Your task to perform on an android device: add a label to a message in the gmail app Image 0: 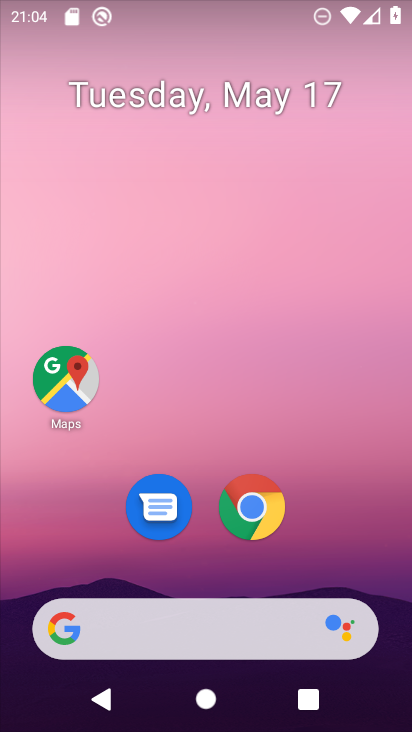
Step 0: drag from (360, 568) to (360, 14)
Your task to perform on an android device: add a label to a message in the gmail app Image 1: 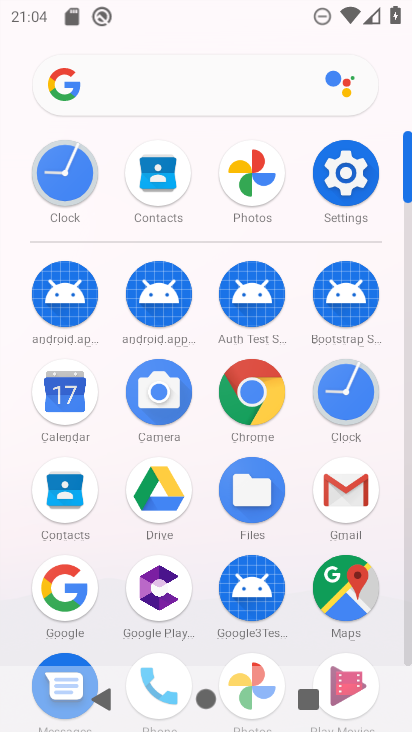
Step 1: click (333, 489)
Your task to perform on an android device: add a label to a message in the gmail app Image 2: 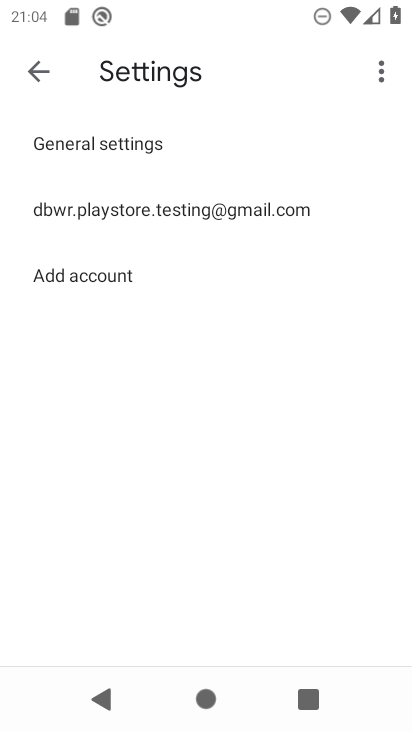
Step 2: click (38, 73)
Your task to perform on an android device: add a label to a message in the gmail app Image 3: 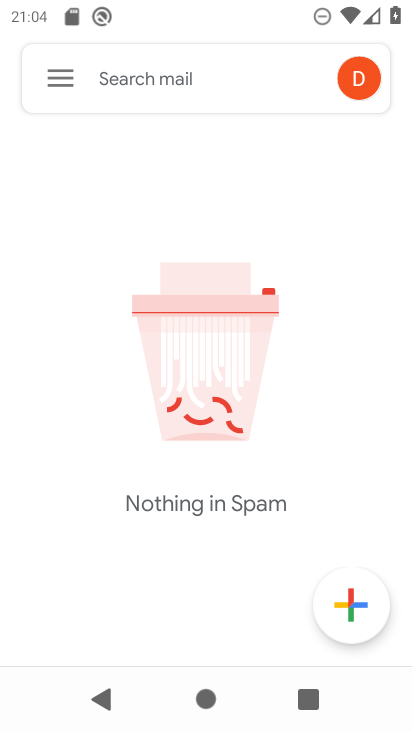
Step 3: click (54, 86)
Your task to perform on an android device: add a label to a message in the gmail app Image 4: 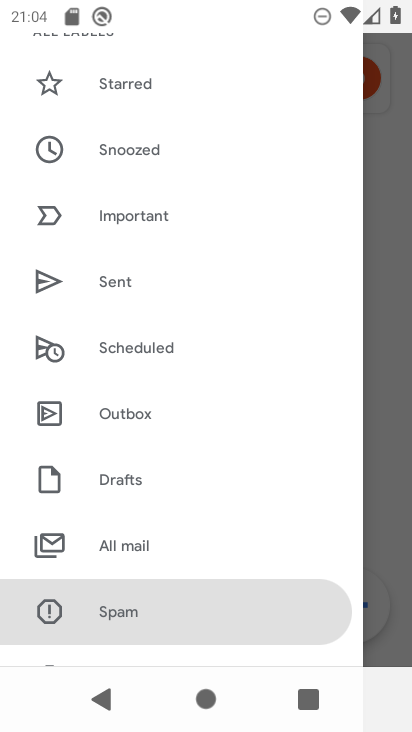
Step 4: click (157, 549)
Your task to perform on an android device: add a label to a message in the gmail app Image 5: 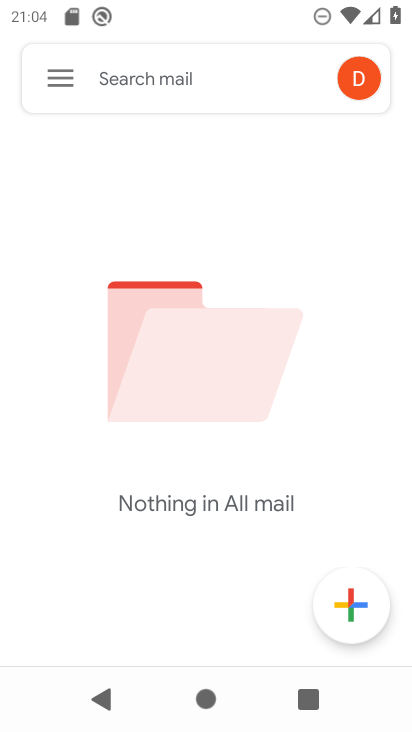
Step 5: task complete